Your task to perform on an android device: Open CNN.com Image 0: 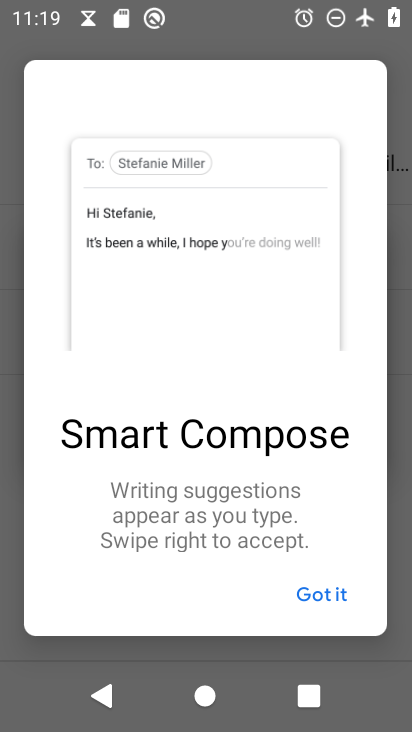
Step 0: press home button
Your task to perform on an android device: Open CNN.com Image 1: 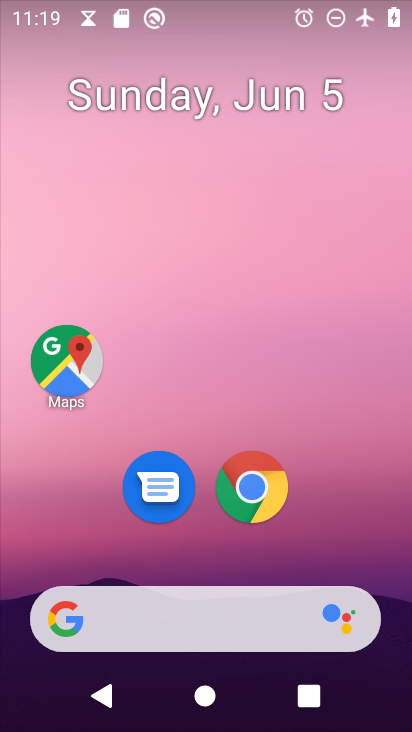
Step 1: drag from (301, 545) to (310, 250)
Your task to perform on an android device: Open CNN.com Image 2: 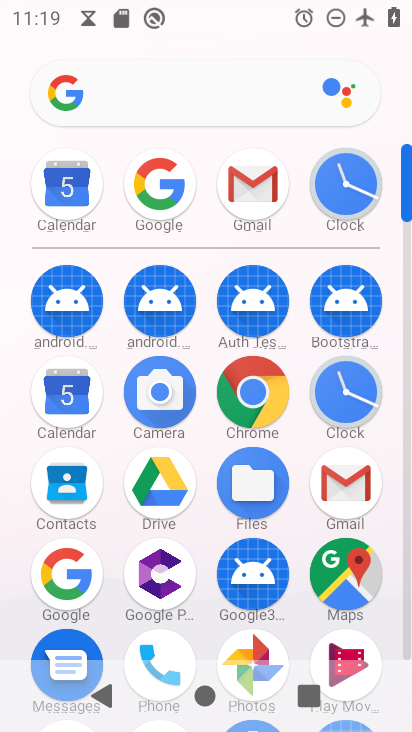
Step 2: click (251, 390)
Your task to perform on an android device: Open CNN.com Image 3: 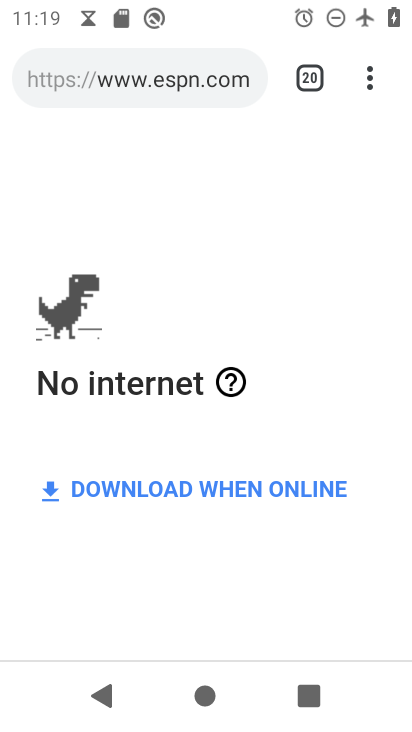
Step 3: click (362, 67)
Your task to perform on an android device: Open CNN.com Image 4: 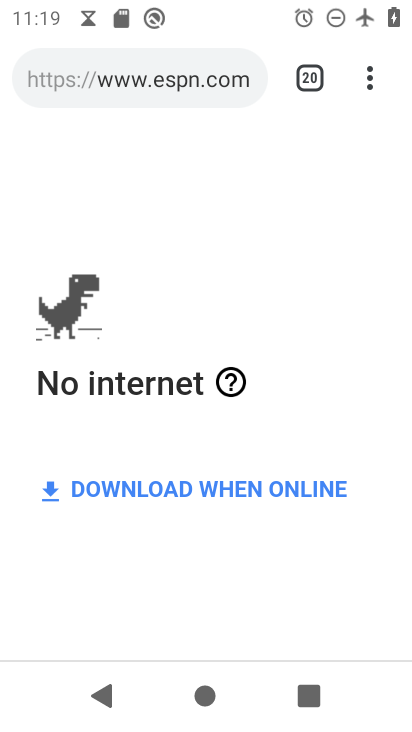
Step 4: click (362, 72)
Your task to perform on an android device: Open CNN.com Image 5: 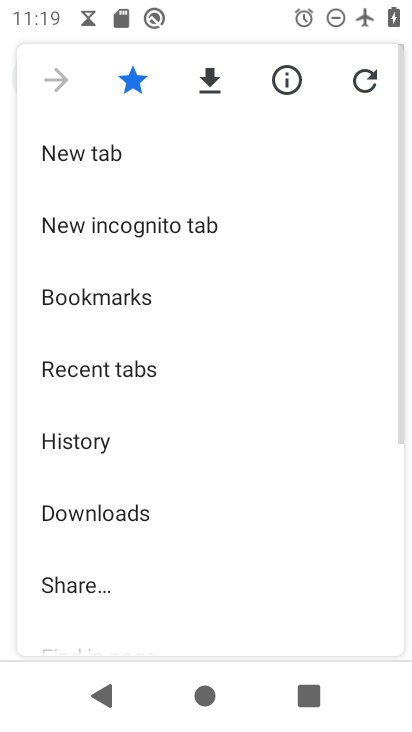
Step 5: click (115, 157)
Your task to perform on an android device: Open CNN.com Image 6: 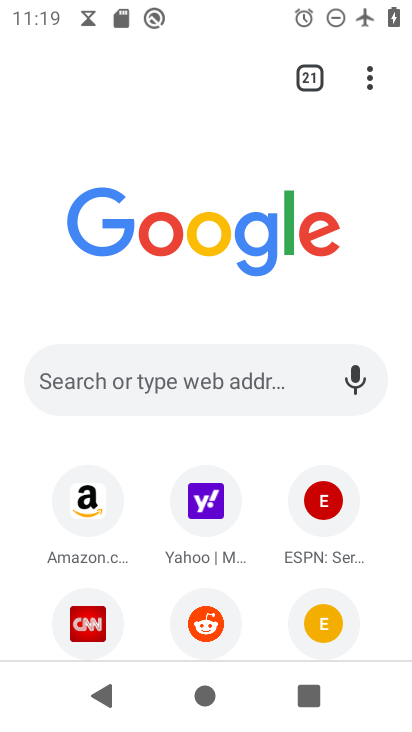
Step 6: click (100, 620)
Your task to perform on an android device: Open CNN.com Image 7: 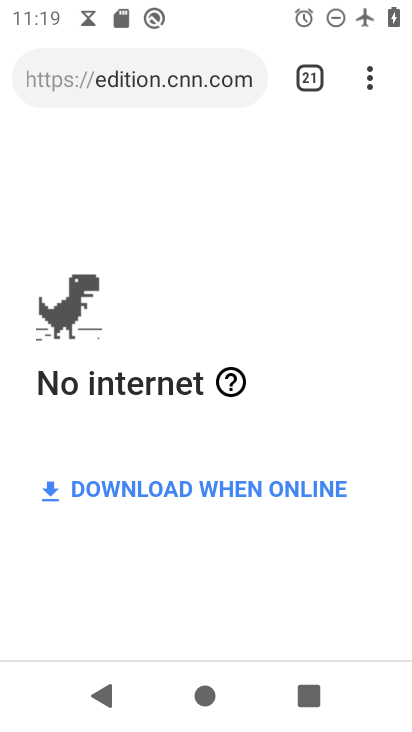
Step 7: task complete